Your task to perform on an android device: turn off notifications settings in the gmail app Image 0: 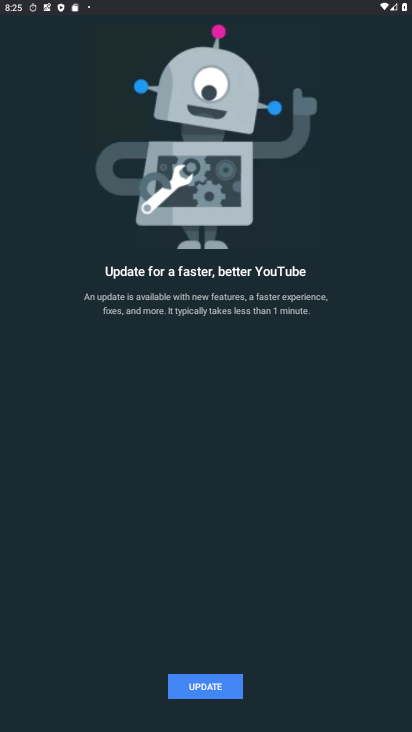
Step 0: press home button
Your task to perform on an android device: turn off notifications settings in the gmail app Image 1: 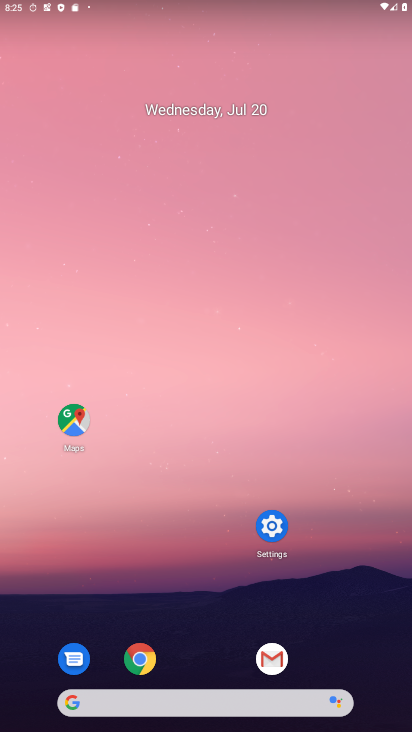
Step 1: click (278, 652)
Your task to perform on an android device: turn off notifications settings in the gmail app Image 2: 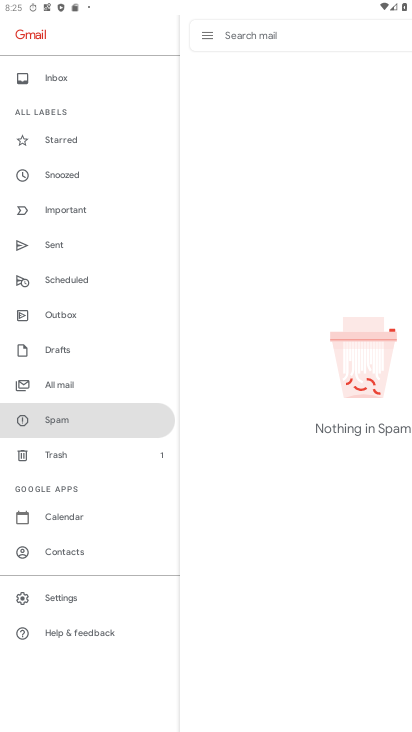
Step 2: click (79, 600)
Your task to perform on an android device: turn off notifications settings in the gmail app Image 3: 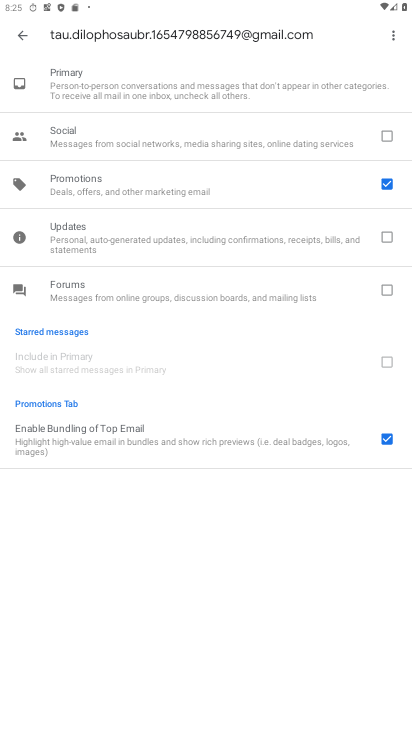
Step 3: click (17, 36)
Your task to perform on an android device: turn off notifications settings in the gmail app Image 4: 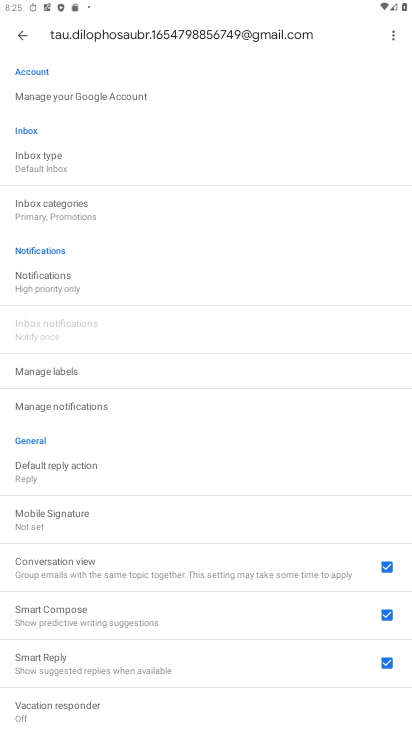
Step 4: click (70, 271)
Your task to perform on an android device: turn off notifications settings in the gmail app Image 5: 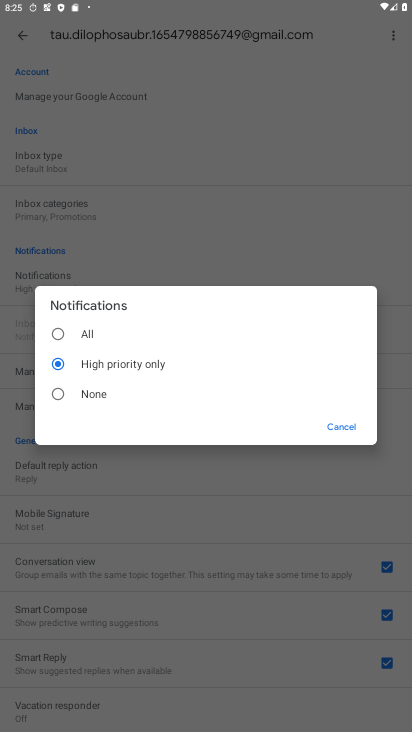
Step 5: click (85, 390)
Your task to perform on an android device: turn off notifications settings in the gmail app Image 6: 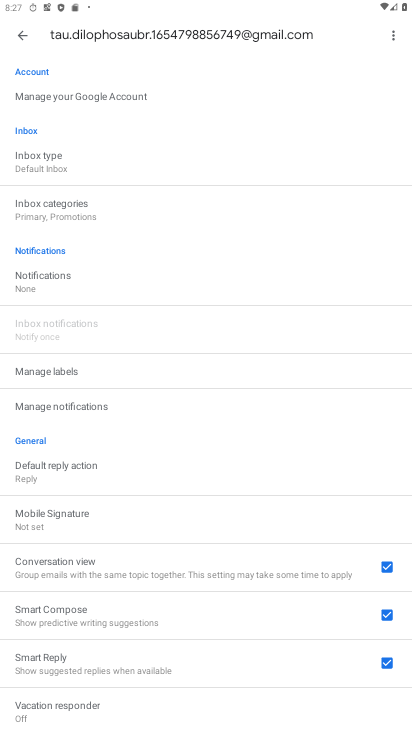
Step 6: task complete